Your task to perform on an android device: Open sound settings Image 0: 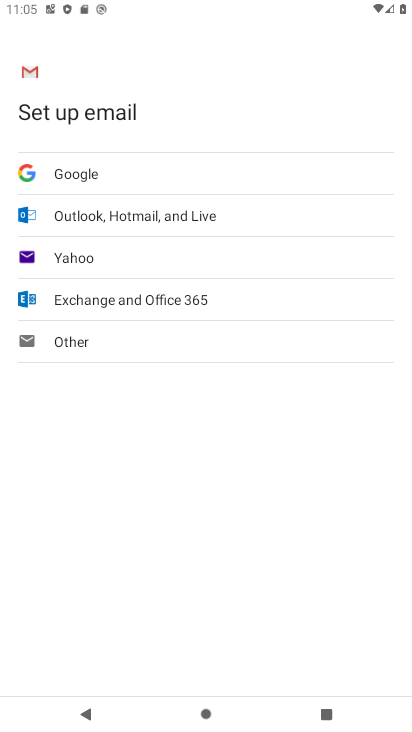
Step 0: press home button
Your task to perform on an android device: Open sound settings Image 1: 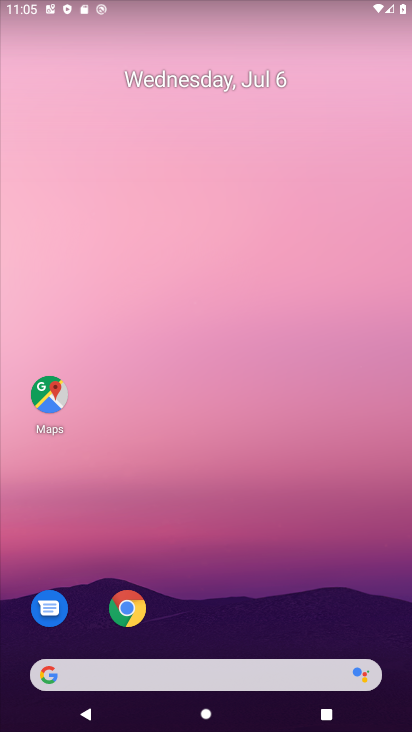
Step 1: drag from (255, 635) to (151, 185)
Your task to perform on an android device: Open sound settings Image 2: 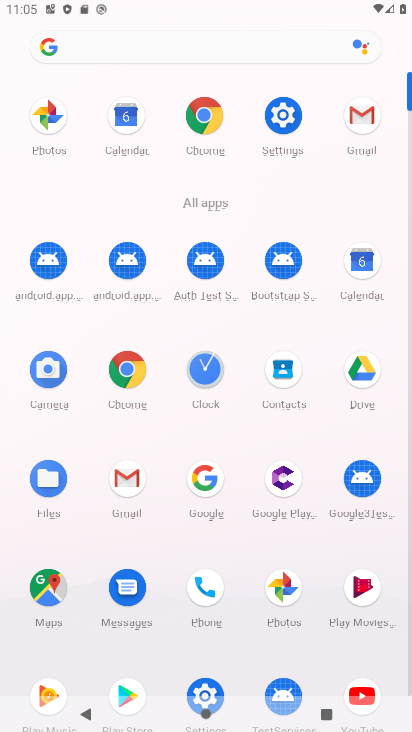
Step 2: click (281, 110)
Your task to perform on an android device: Open sound settings Image 3: 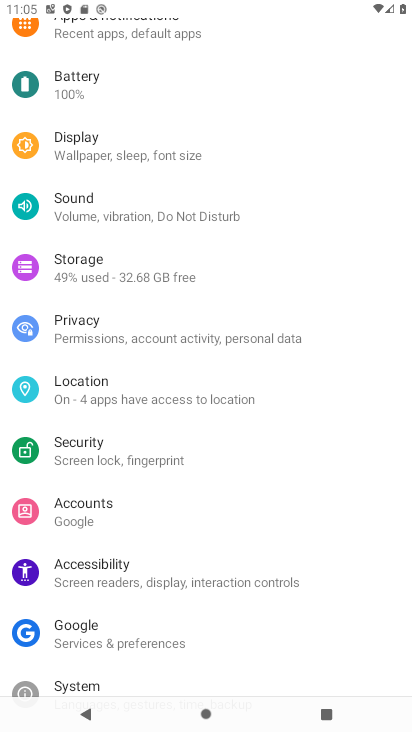
Step 3: click (97, 196)
Your task to perform on an android device: Open sound settings Image 4: 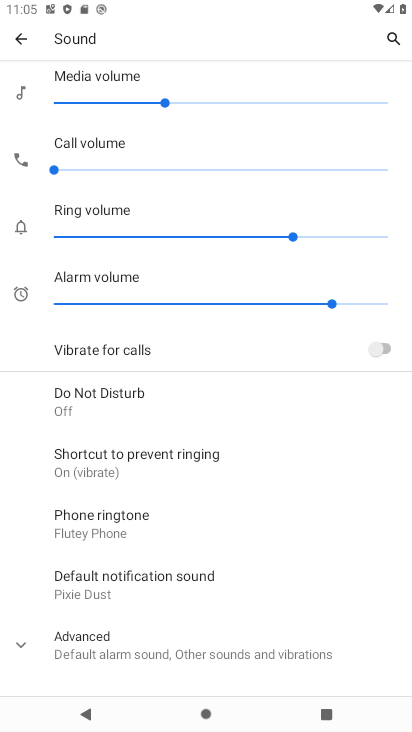
Step 4: task complete